Your task to perform on an android device: Open network settings Image 0: 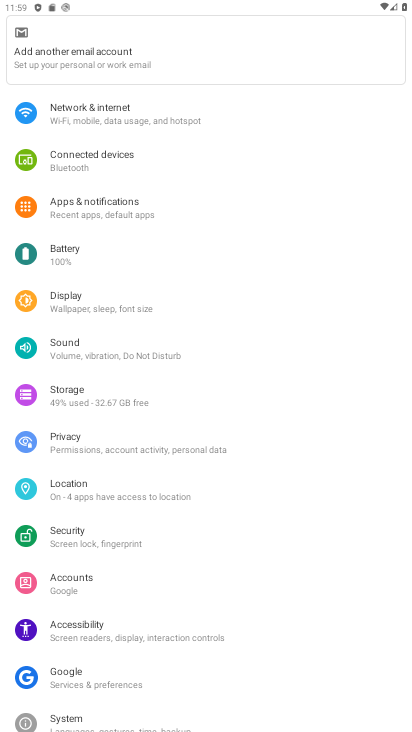
Step 0: click (130, 110)
Your task to perform on an android device: Open network settings Image 1: 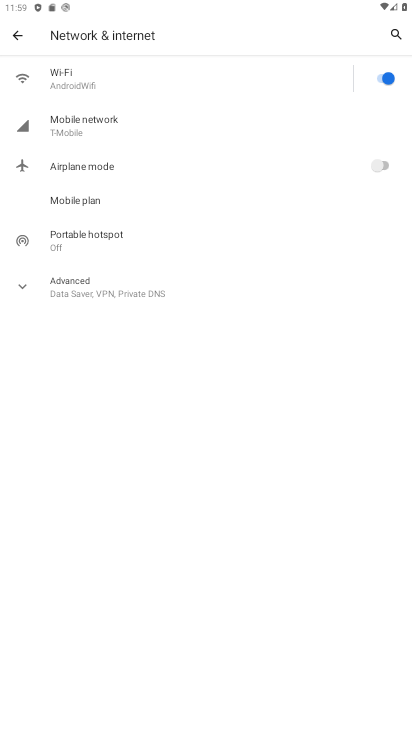
Step 1: task complete